Your task to perform on an android device: allow cookies in the chrome app Image 0: 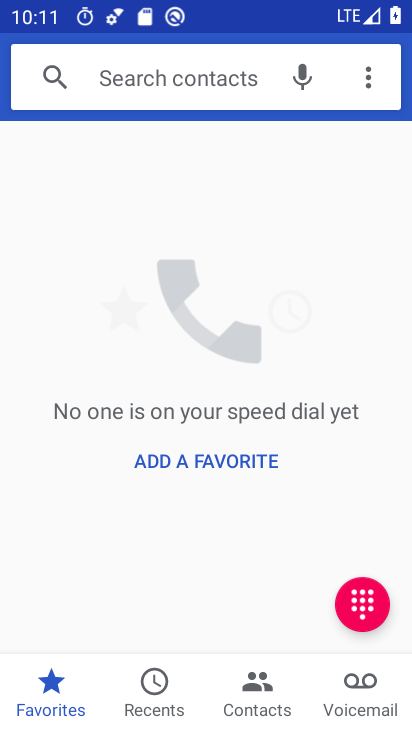
Step 0: press home button
Your task to perform on an android device: allow cookies in the chrome app Image 1: 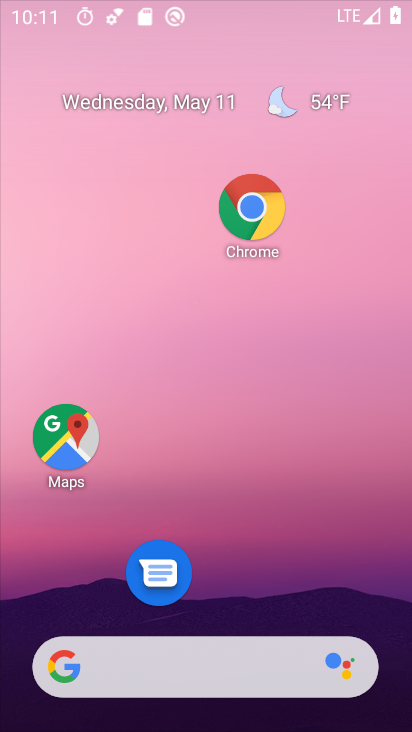
Step 1: drag from (336, 700) to (331, 89)
Your task to perform on an android device: allow cookies in the chrome app Image 2: 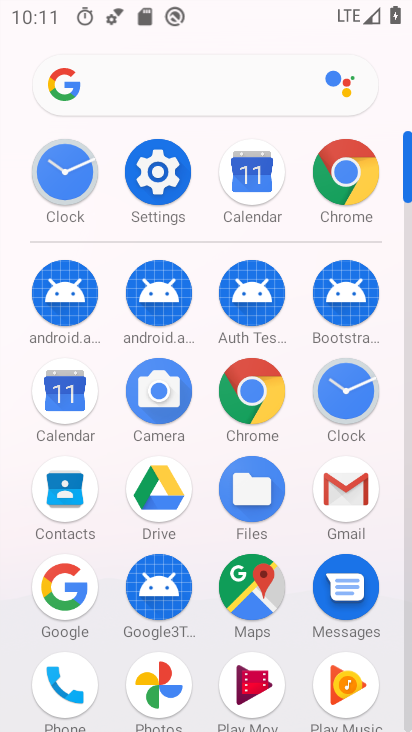
Step 2: click (256, 399)
Your task to perform on an android device: allow cookies in the chrome app Image 3: 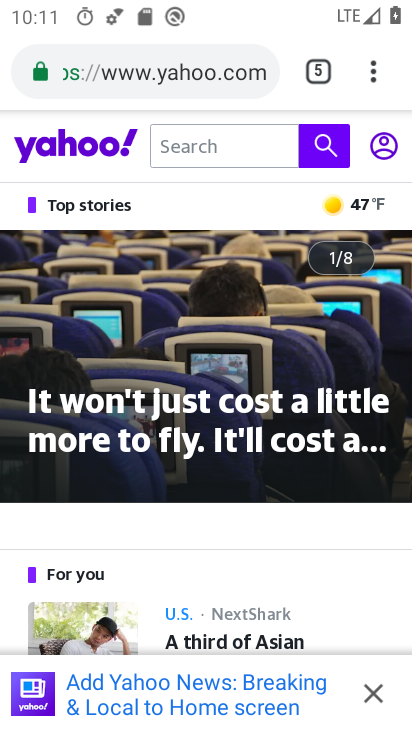
Step 3: drag from (364, 64) to (411, 549)
Your task to perform on an android device: allow cookies in the chrome app Image 4: 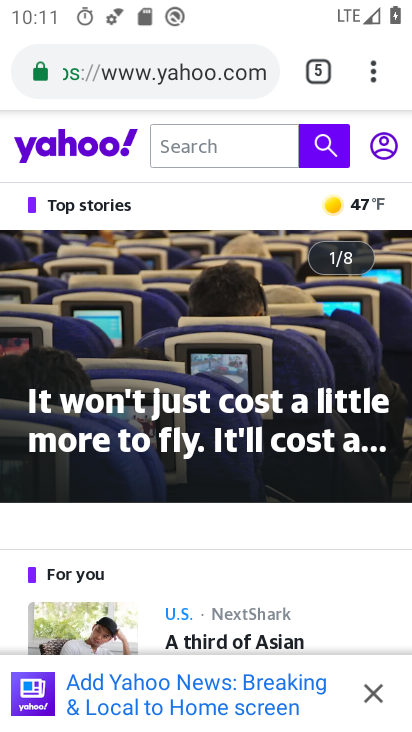
Step 4: click (373, 69)
Your task to perform on an android device: allow cookies in the chrome app Image 5: 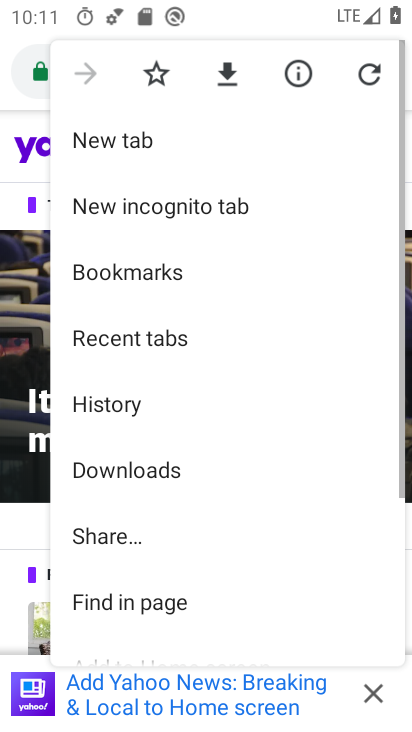
Step 5: drag from (203, 685) to (190, 450)
Your task to perform on an android device: allow cookies in the chrome app Image 6: 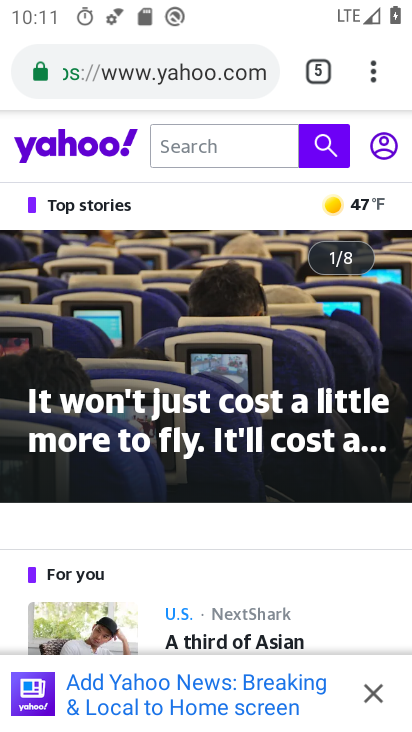
Step 6: click (373, 69)
Your task to perform on an android device: allow cookies in the chrome app Image 7: 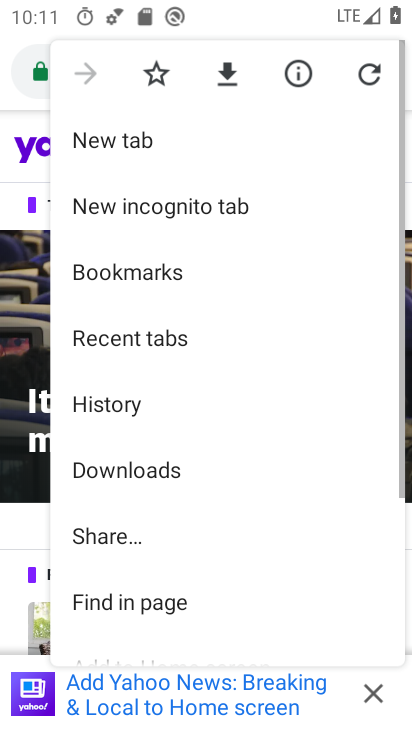
Step 7: drag from (199, 574) to (270, 115)
Your task to perform on an android device: allow cookies in the chrome app Image 8: 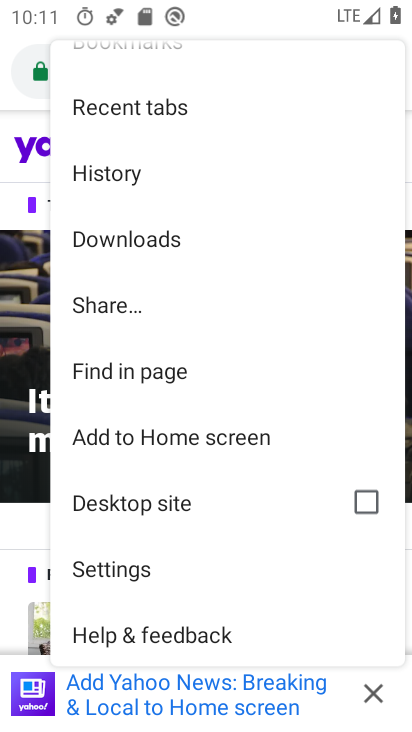
Step 8: click (148, 577)
Your task to perform on an android device: allow cookies in the chrome app Image 9: 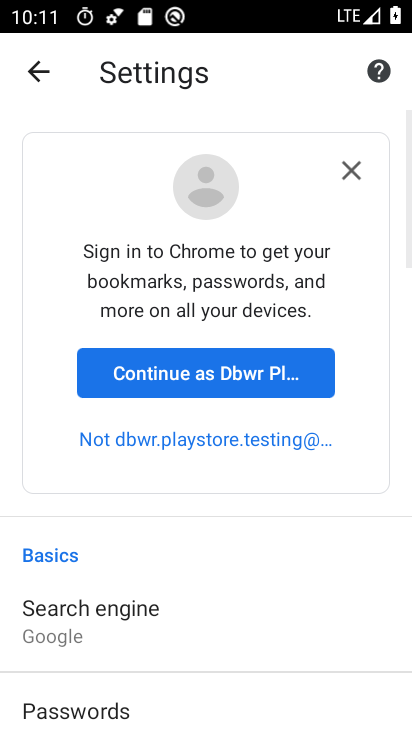
Step 9: drag from (174, 685) to (330, 182)
Your task to perform on an android device: allow cookies in the chrome app Image 10: 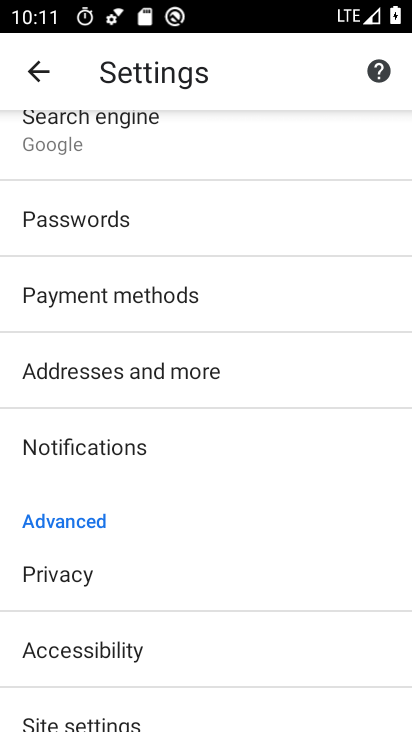
Step 10: drag from (199, 702) to (232, 464)
Your task to perform on an android device: allow cookies in the chrome app Image 11: 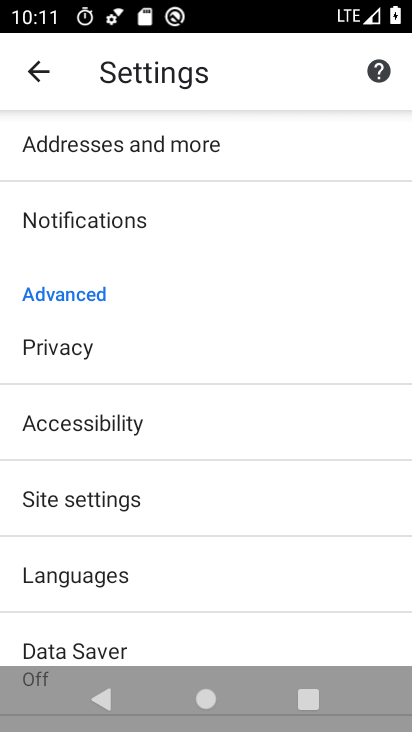
Step 11: click (203, 567)
Your task to perform on an android device: allow cookies in the chrome app Image 12: 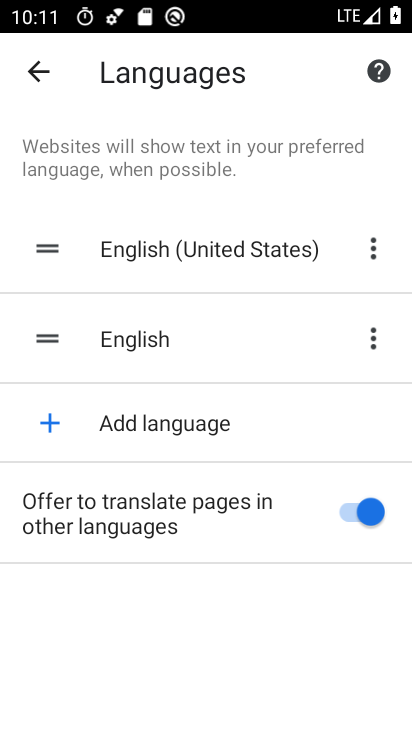
Step 12: press back button
Your task to perform on an android device: allow cookies in the chrome app Image 13: 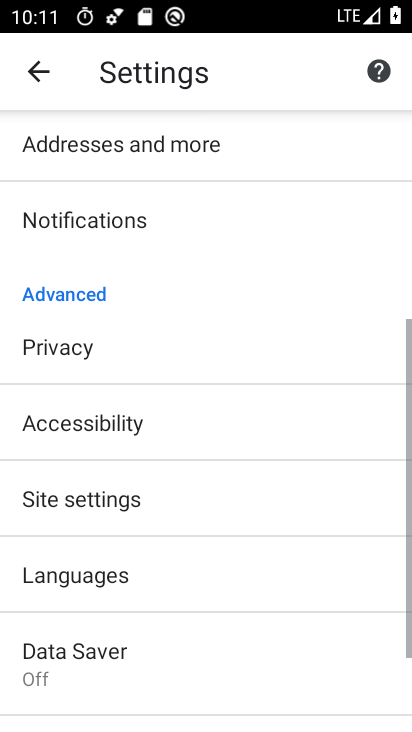
Step 13: click (121, 512)
Your task to perform on an android device: allow cookies in the chrome app Image 14: 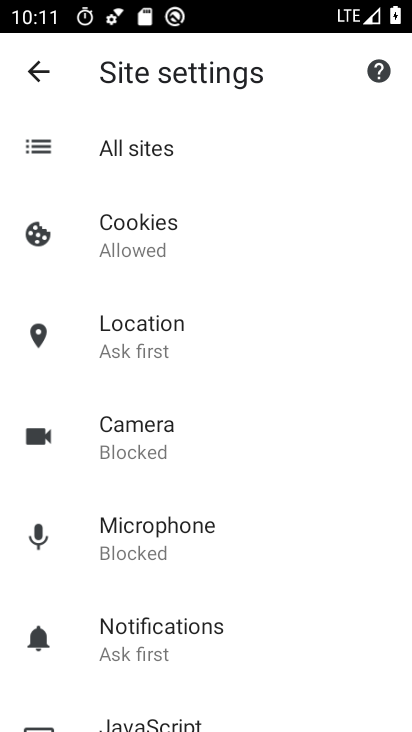
Step 14: click (145, 230)
Your task to perform on an android device: allow cookies in the chrome app Image 15: 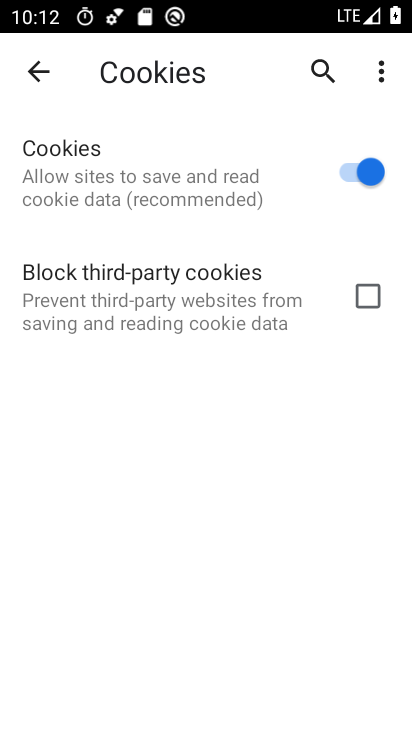
Step 15: task complete